Your task to perform on an android device: turn on location history Image 0: 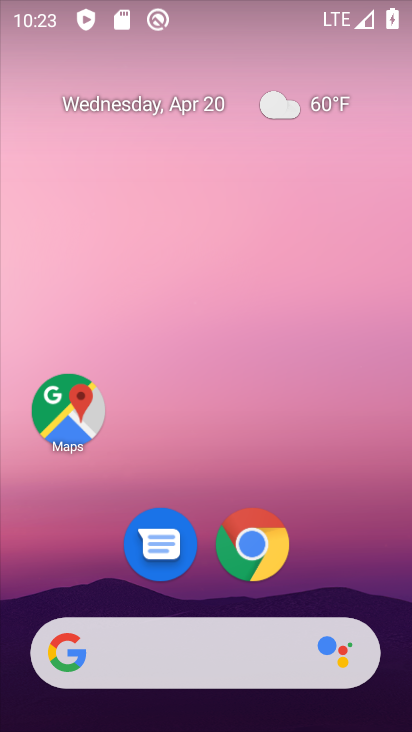
Step 0: drag from (362, 382) to (330, 77)
Your task to perform on an android device: turn on location history Image 1: 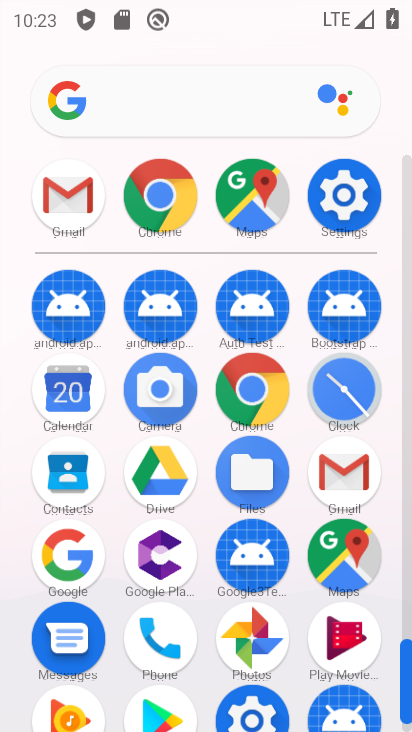
Step 1: click (359, 548)
Your task to perform on an android device: turn on location history Image 2: 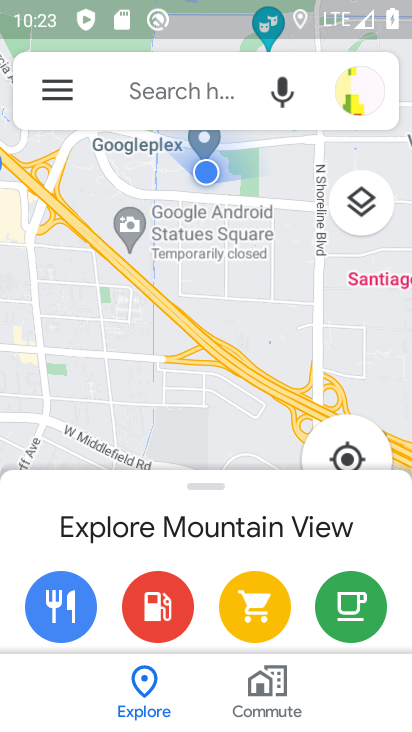
Step 2: click (47, 93)
Your task to perform on an android device: turn on location history Image 3: 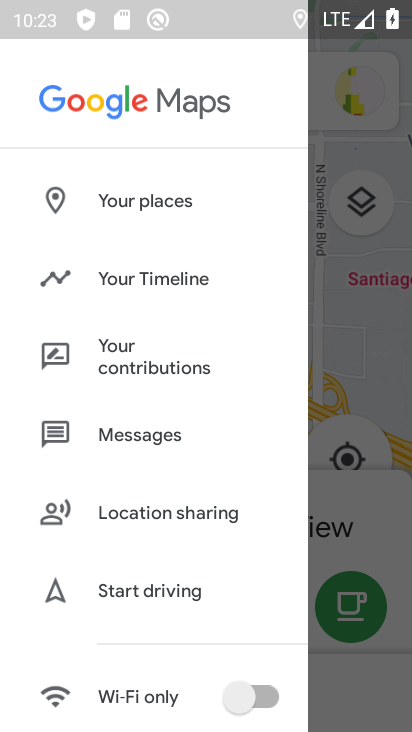
Step 3: click (140, 284)
Your task to perform on an android device: turn on location history Image 4: 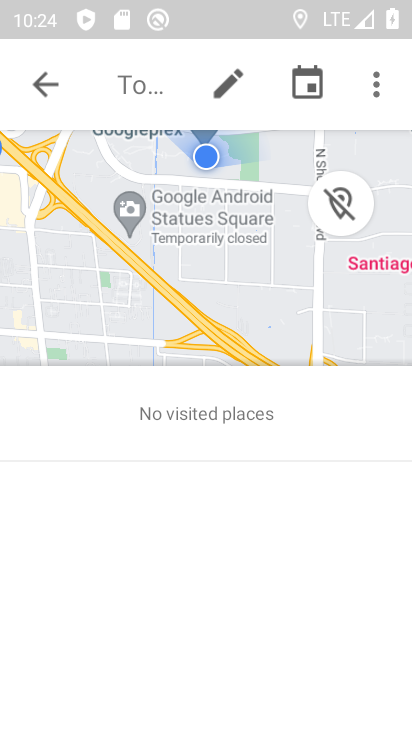
Step 4: click (368, 84)
Your task to perform on an android device: turn on location history Image 5: 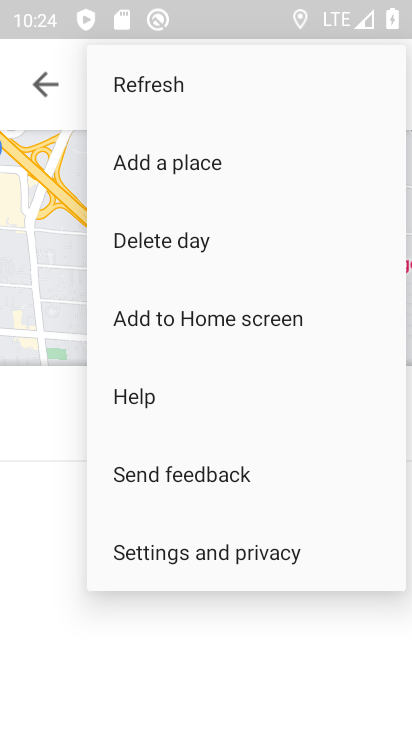
Step 5: click (243, 557)
Your task to perform on an android device: turn on location history Image 6: 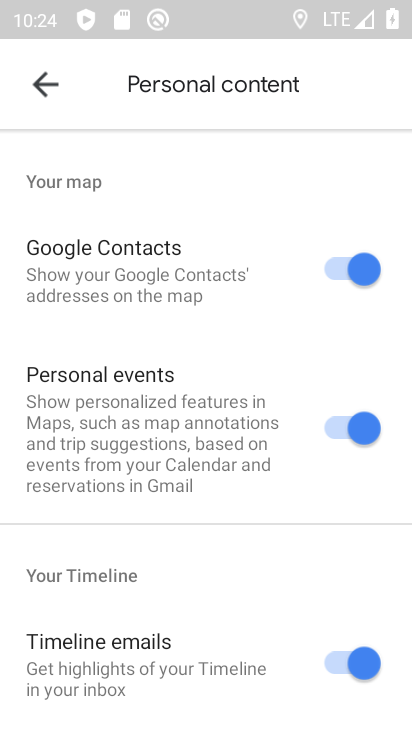
Step 6: drag from (244, 561) to (253, 180)
Your task to perform on an android device: turn on location history Image 7: 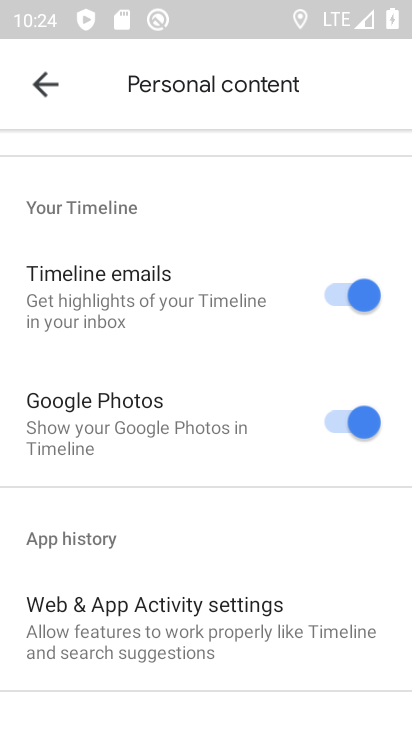
Step 7: drag from (270, 553) to (235, 238)
Your task to perform on an android device: turn on location history Image 8: 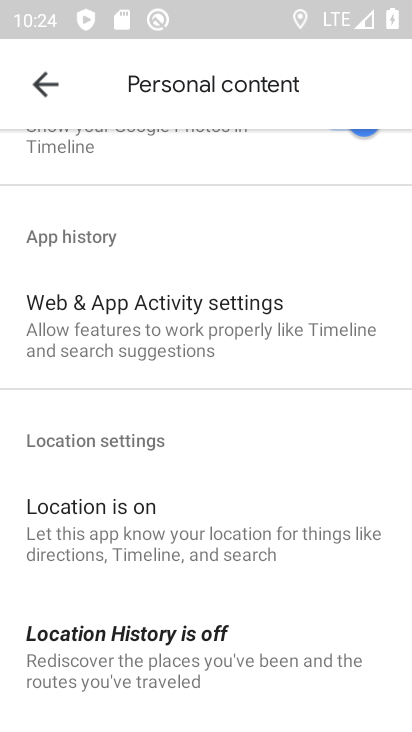
Step 8: click (255, 649)
Your task to perform on an android device: turn on location history Image 9: 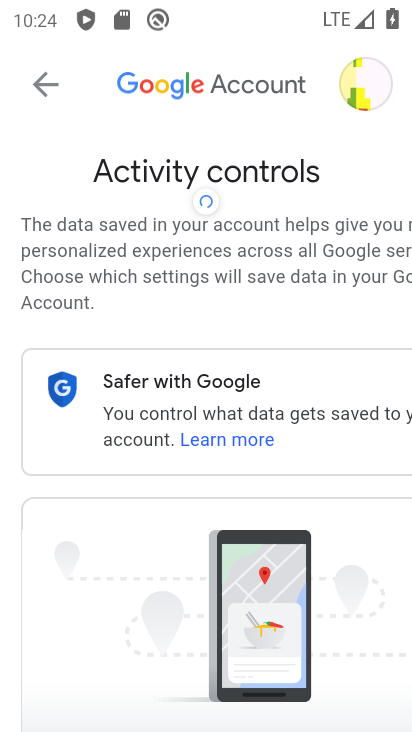
Step 9: task complete